Your task to perform on an android device: open sync settings in chrome Image 0: 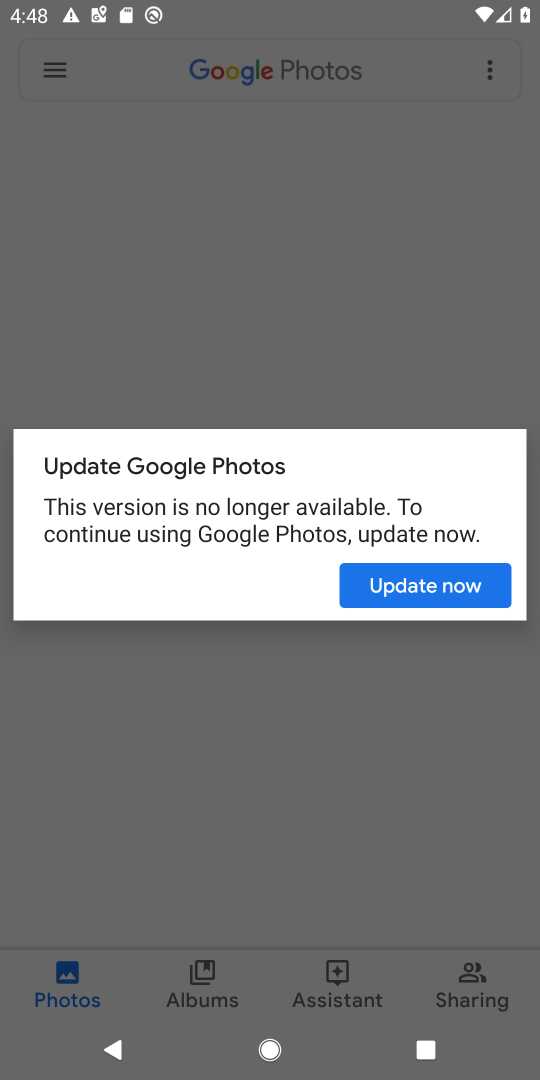
Step 0: press back button
Your task to perform on an android device: open sync settings in chrome Image 1: 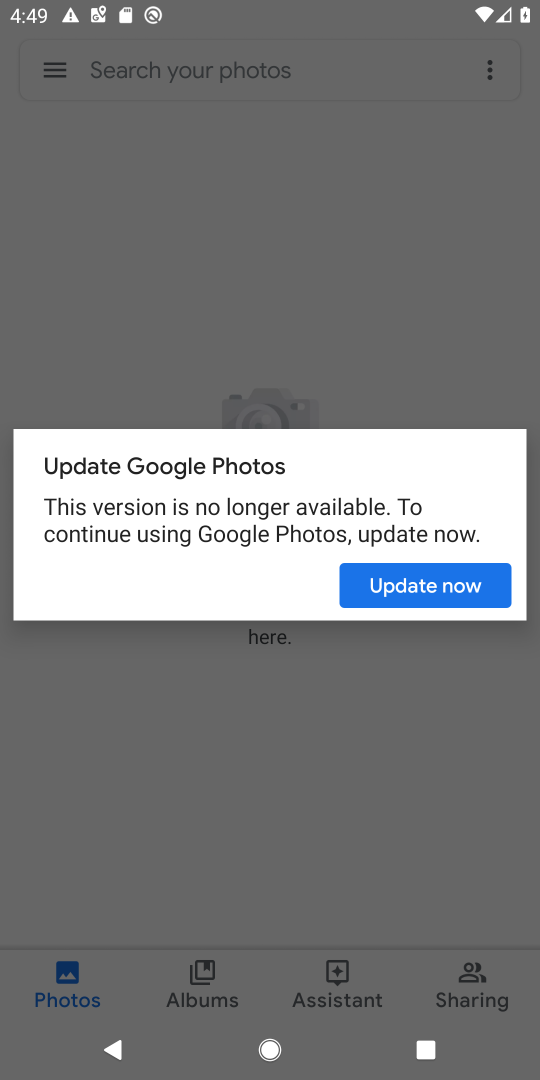
Step 1: press back button
Your task to perform on an android device: open sync settings in chrome Image 2: 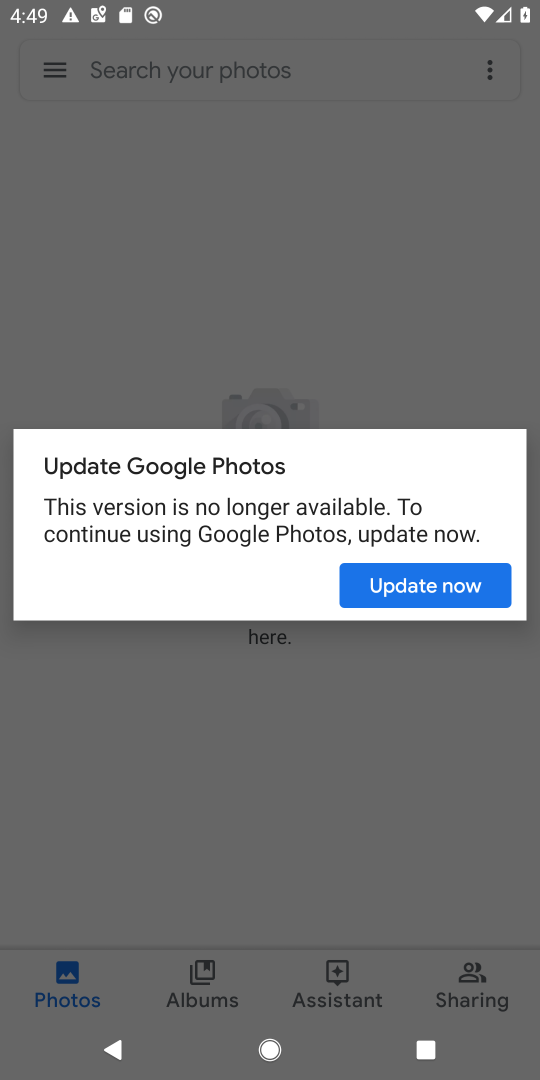
Step 2: press home button
Your task to perform on an android device: open sync settings in chrome Image 3: 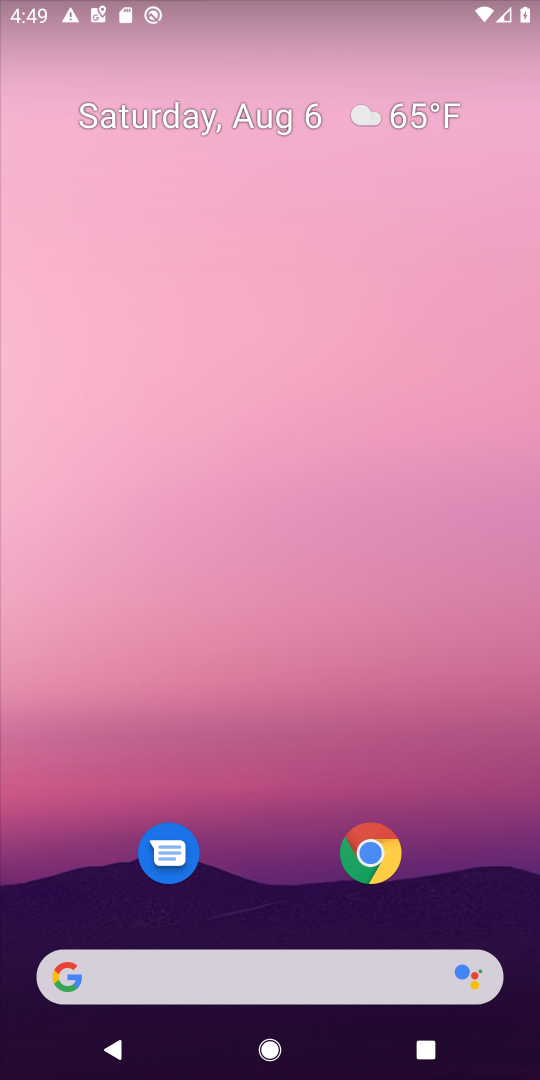
Step 3: click (358, 840)
Your task to perform on an android device: open sync settings in chrome Image 4: 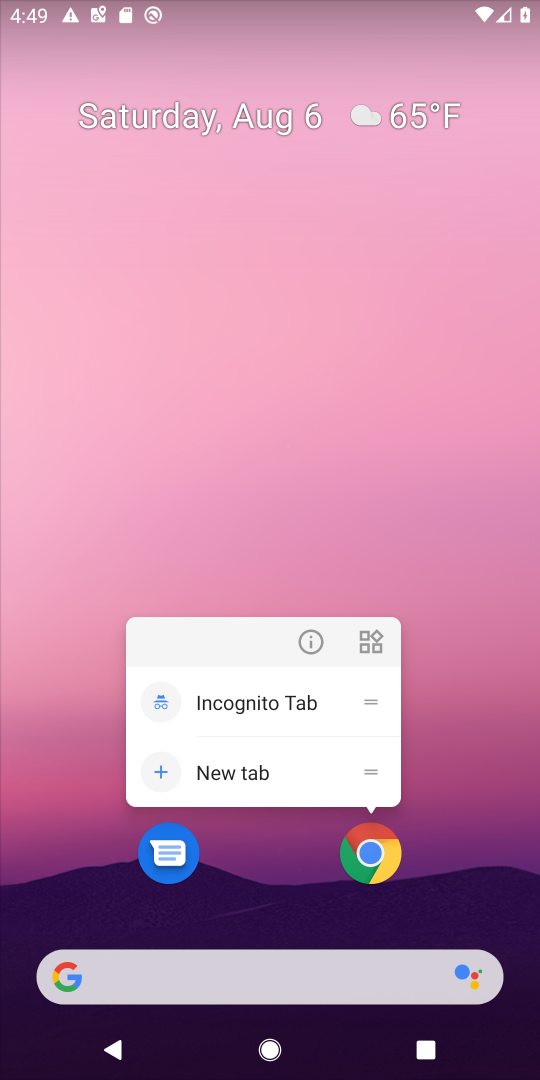
Step 4: click (369, 862)
Your task to perform on an android device: open sync settings in chrome Image 5: 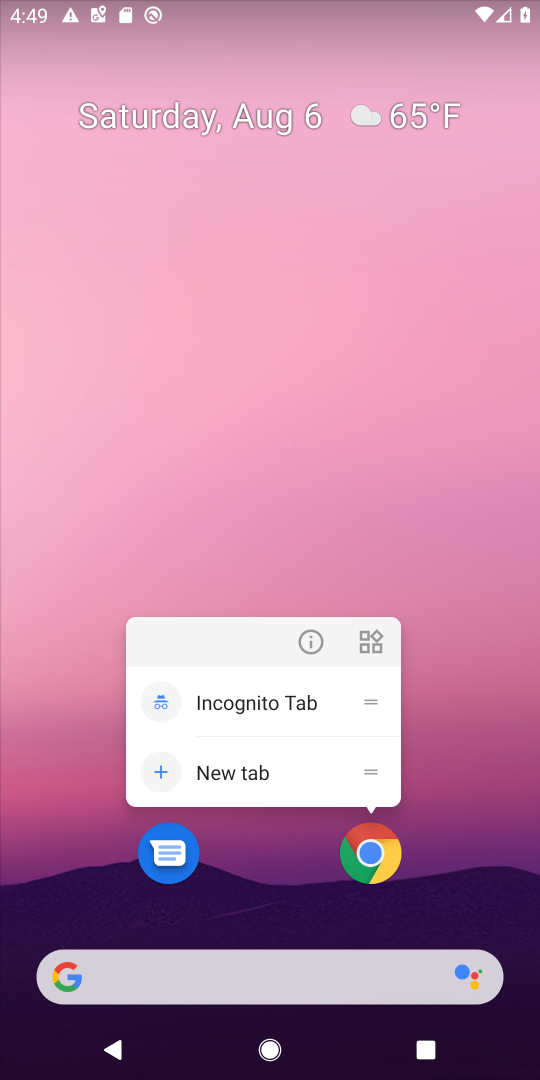
Step 5: click (379, 861)
Your task to perform on an android device: open sync settings in chrome Image 6: 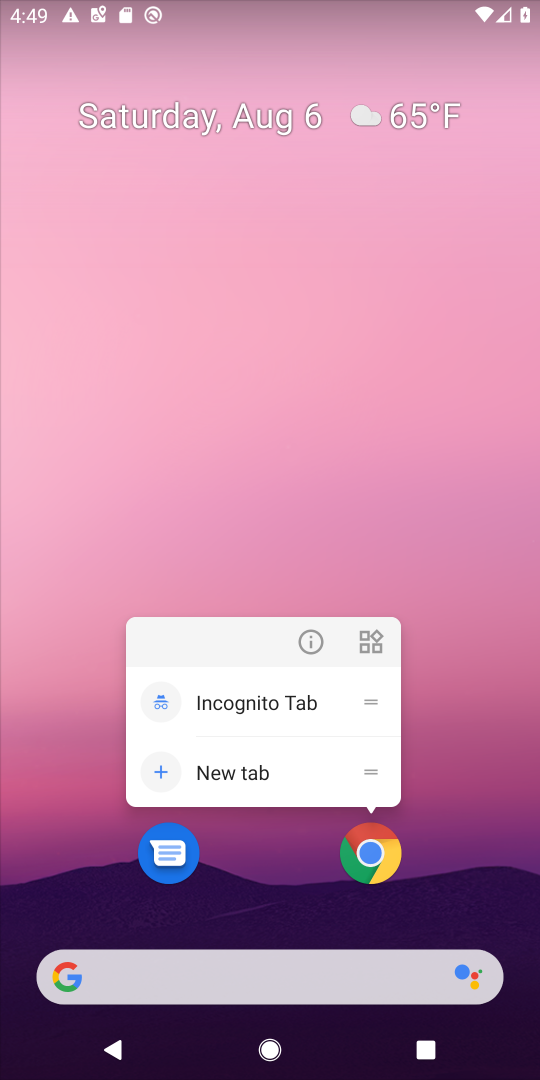
Step 6: click (379, 861)
Your task to perform on an android device: open sync settings in chrome Image 7: 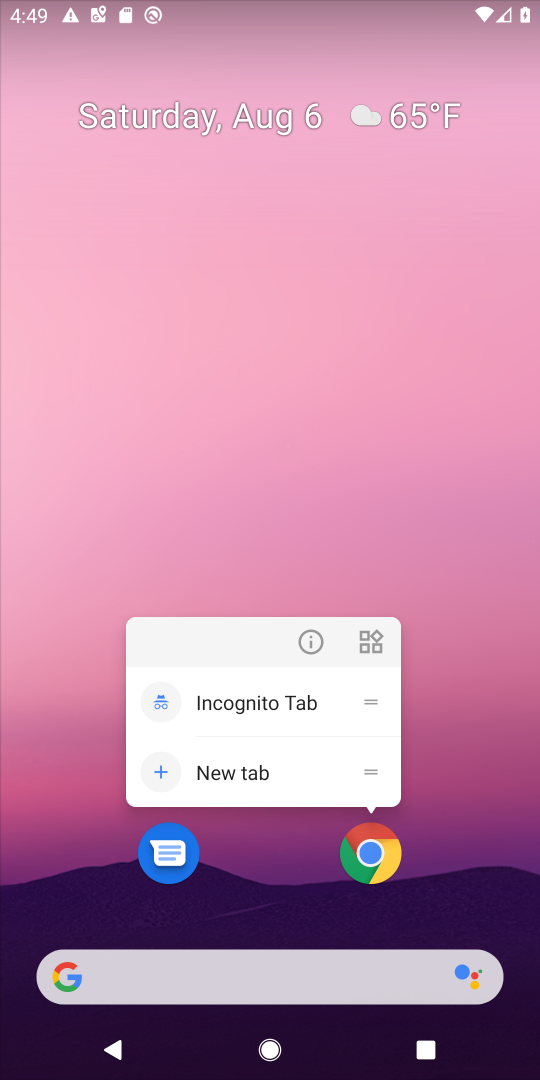
Step 7: click (379, 852)
Your task to perform on an android device: open sync settings in chrome Image 8: 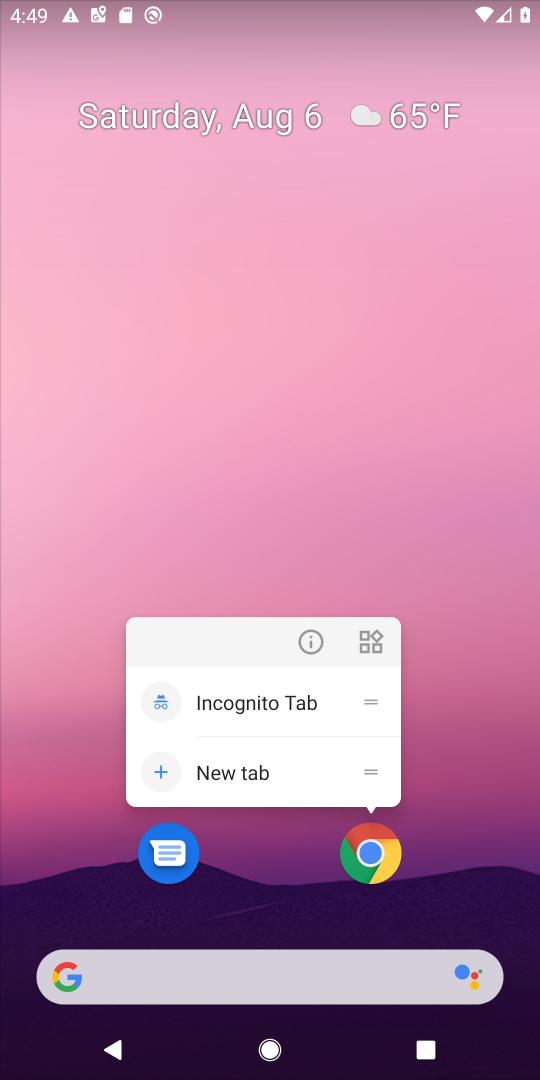
Step 8: click (373, 852)
Your task to perform on an android device: open sync settings in chrome Image 9: 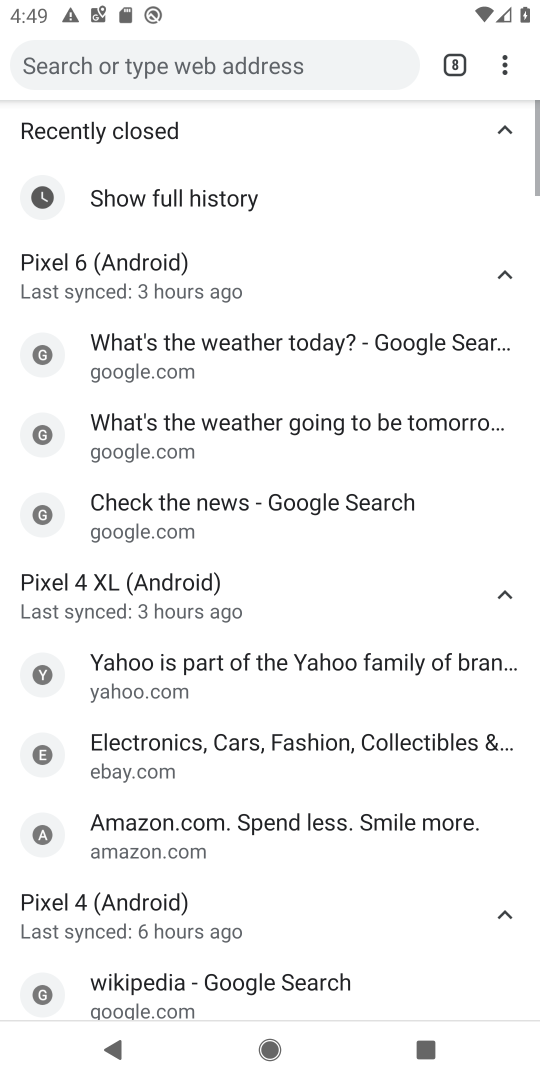
Step 9: drag from (505, 60) to (276, 547)
Your task to perform on an android device: open sync settings in chrome Image 10: 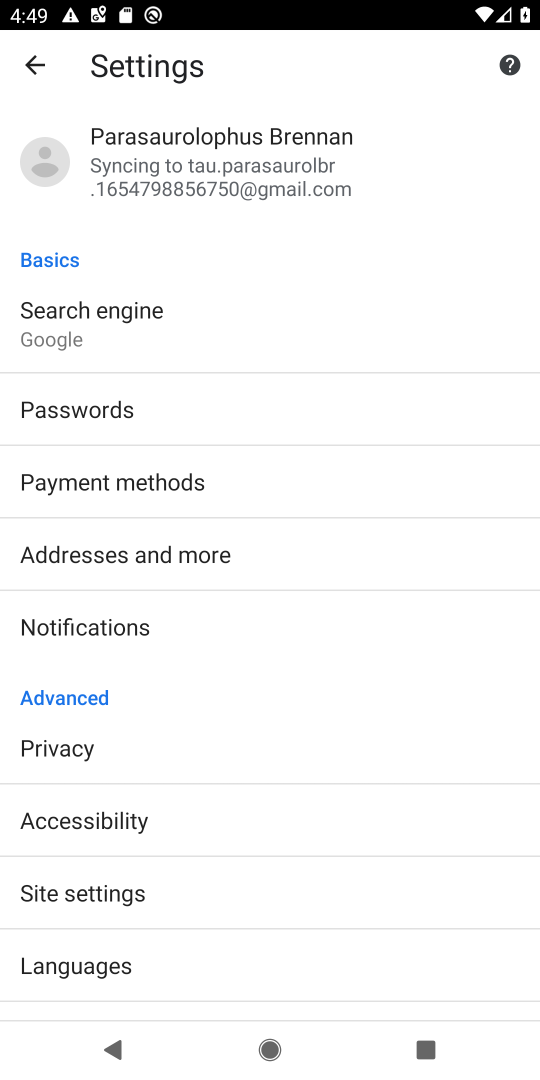
Step 10: click (163, 181)
Your task to perform on an android device: open sync settings in chrome Image 11: 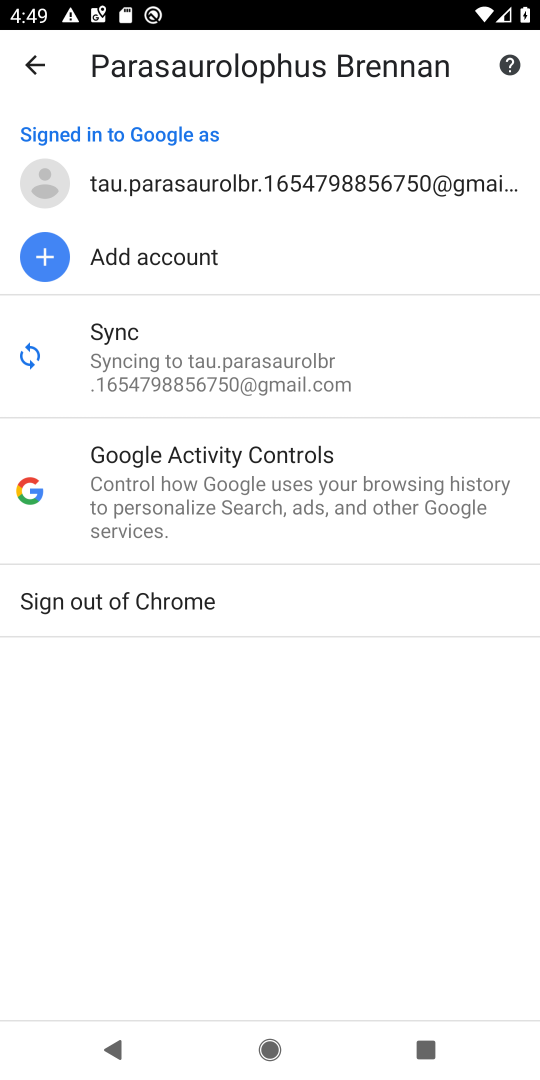
Step 11: task complete